Your task to perform on an android device: change text size in settings app Image 0: 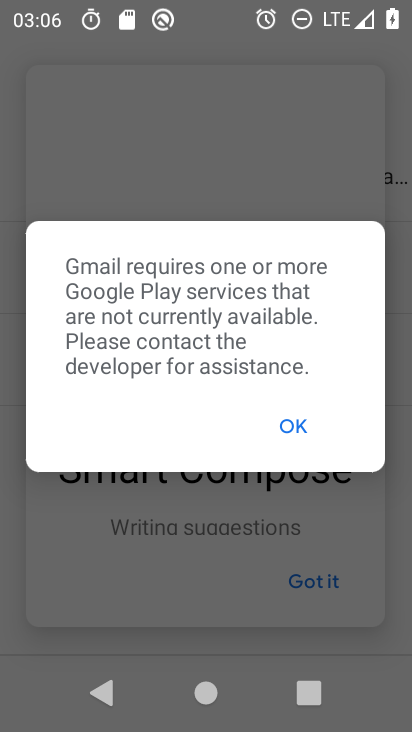
Step 0: press home button
Your task to perform on an android device: change text size in settings app Image 1: 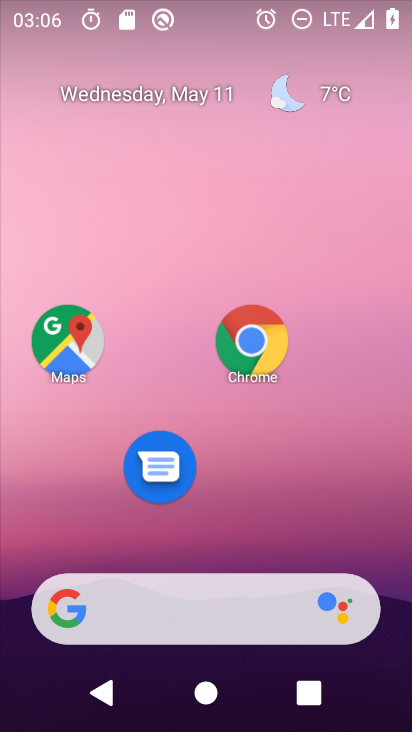
Step 1: drag from (133, 626) to (258, 237)
Your task to perform on an android device: change text size in settings app Image 2: 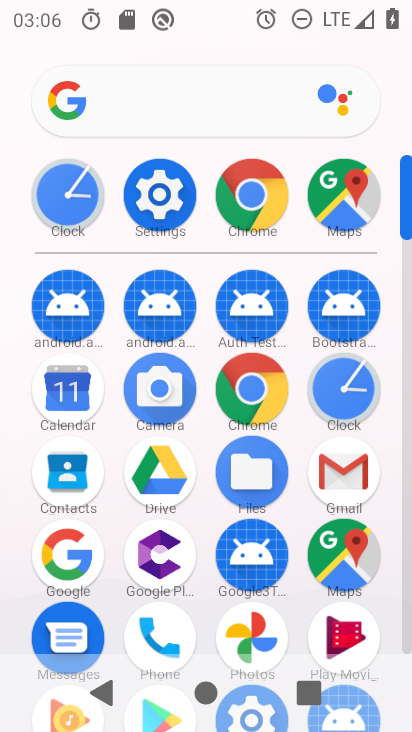
Step 2: click (162, 201)
Your task to perform on an android device: change text size in settings app Image 3: 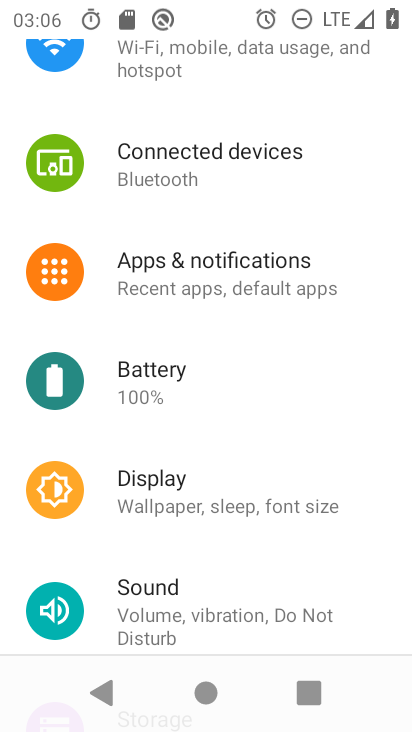
Step 3: click (194, 507)
Your task to perform on an android device: change text size in settings app Image 4: 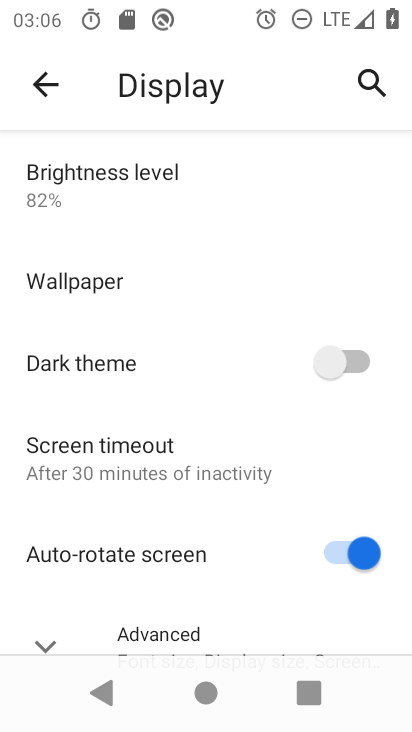
Step 4: drag from (184, 562) to (326, 256)
Your task to perform on an android device: change text size in settings app Image 5: 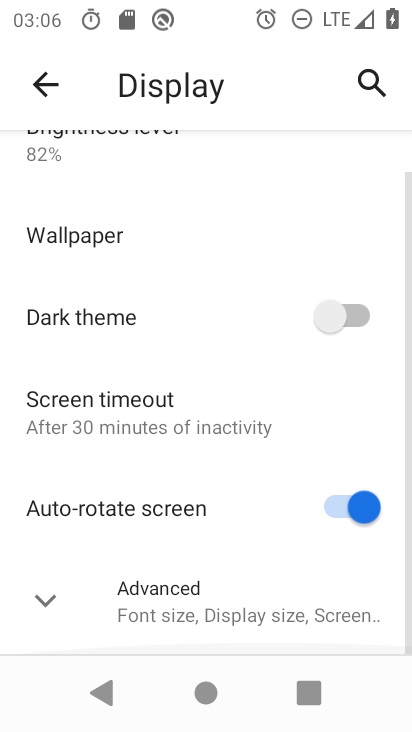
Step 5: click (164, 605)
Your task to perform on an android device: change text size in settings app Image 6: 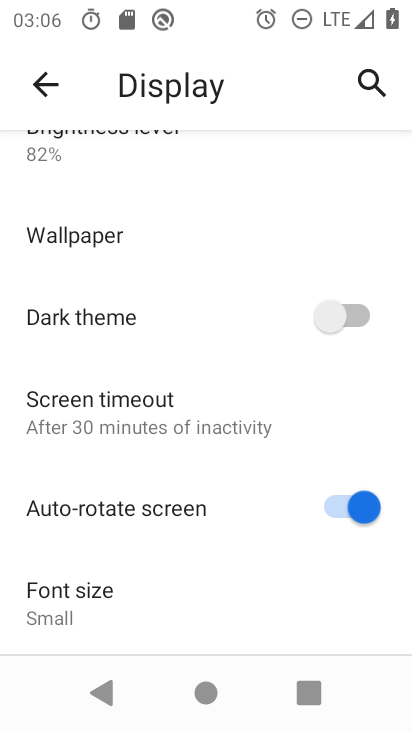
Step 6: drag from (163, 599) to (274, 321)
Your task to perform on an android device: change text size in settings app Image 7: 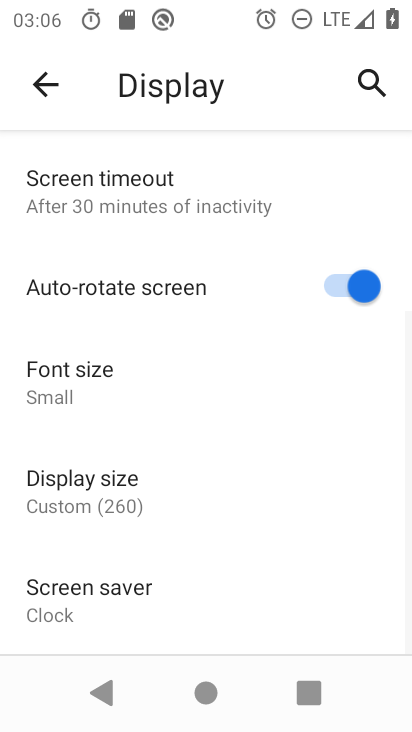
Step 7: click (89, 377)
Your task to perform on an android device: change text size in settings app Image 8: 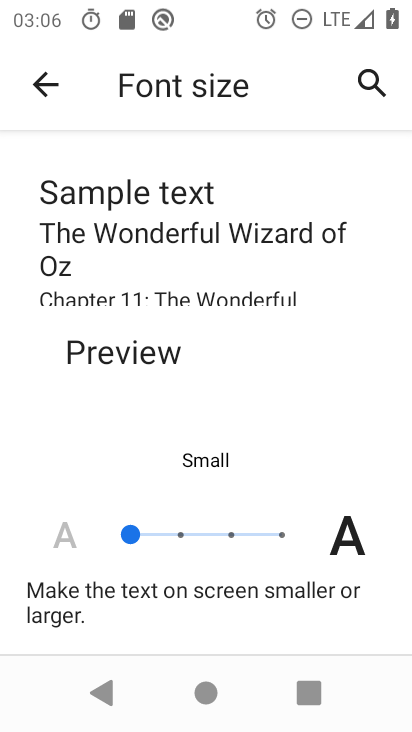
Step 8: click (177, 538)
Your task to perform on an android device: change text size in settings app Image 9: 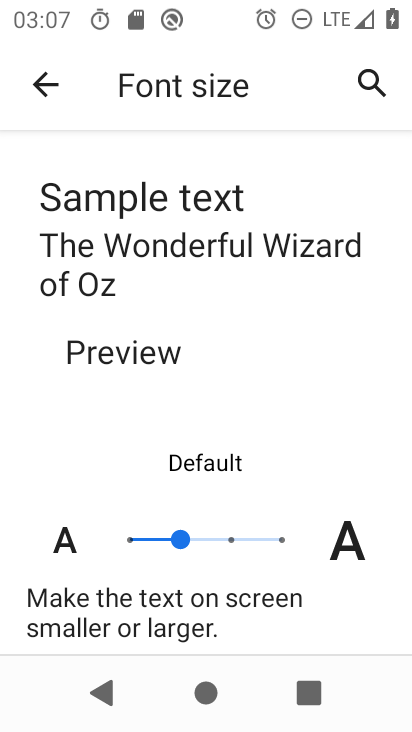
Step 9: task complete